Your task to perform on an android device: turn off data saver in the chrome app Image 0: 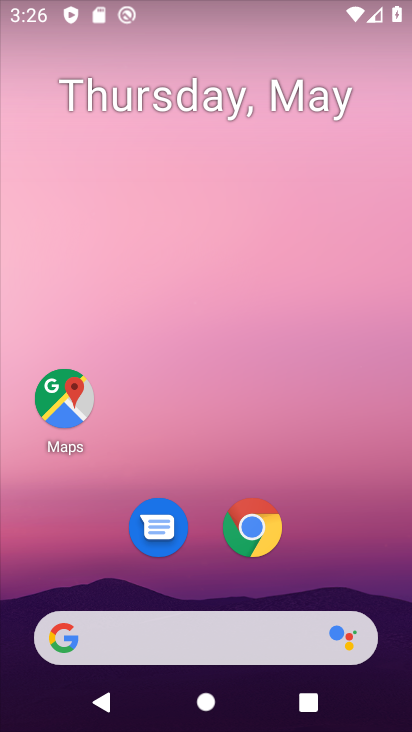
Step 0: click (253, 528)
Your task to perform on an android device: turn off data saver in the chrome app Image 1: 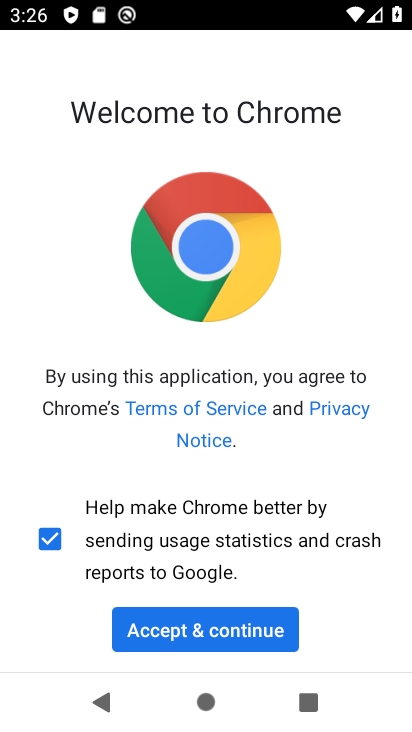
Step 1: click (196, 638)
Your task to perform on an android device: turn off data saver in the chrome app Image 2: 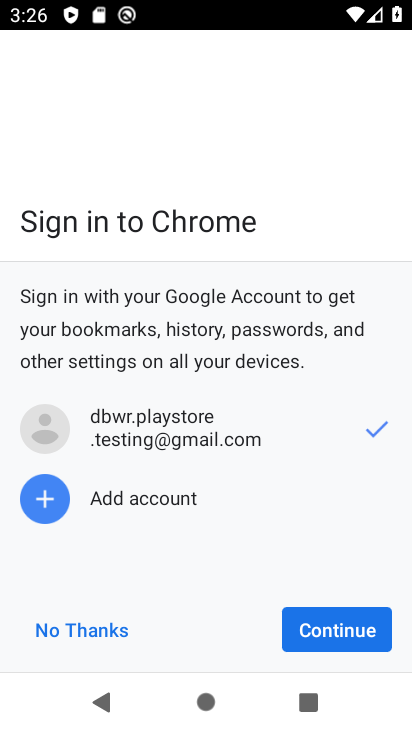
Step 2: click (327, 628)
Your task to perform on an android device: turn off data saver in the chrome app Image 3: 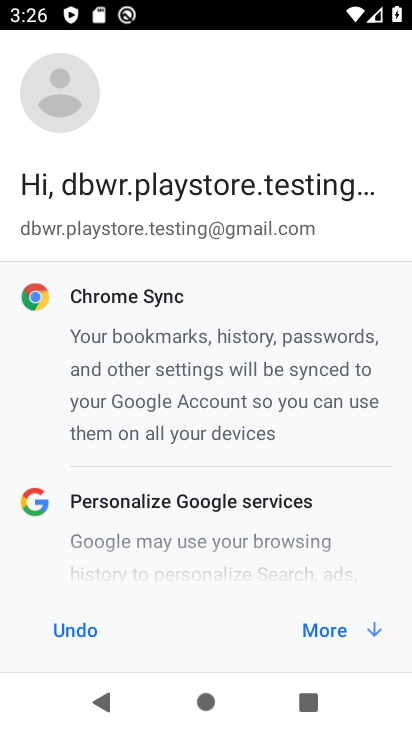
Step 3: click (327, 628)
Your task to perform on an android device: turn off data saver in the chrome app Image 4: 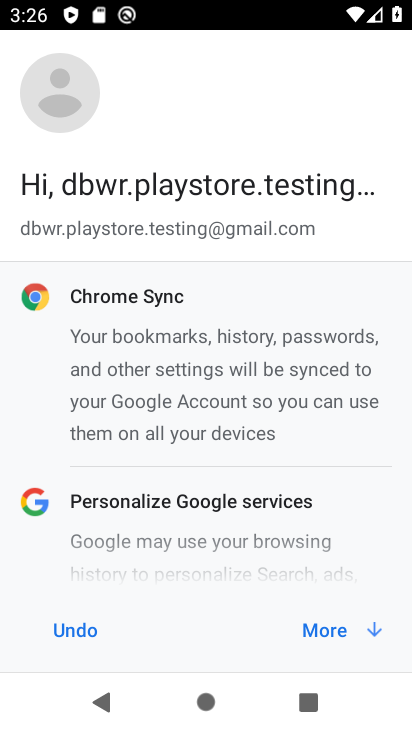
Step 4: click (327, 628)
Your task to perform on an android device: turn off data saver in the chrome app Image 5: 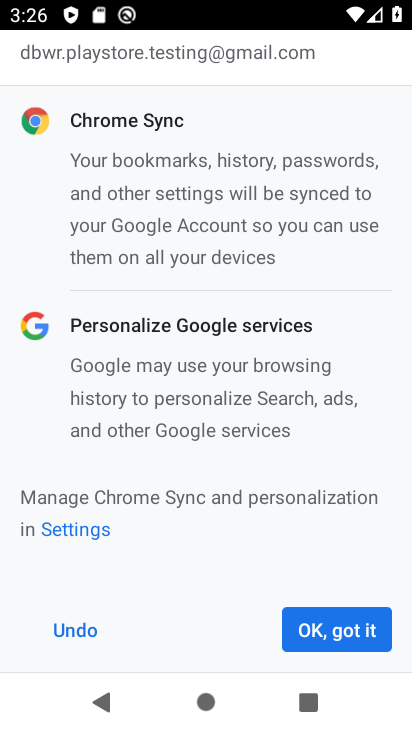
Step 5: click (327, 628)
Your task to perform on an android device: turn off data saver in the chrome app Image 6: 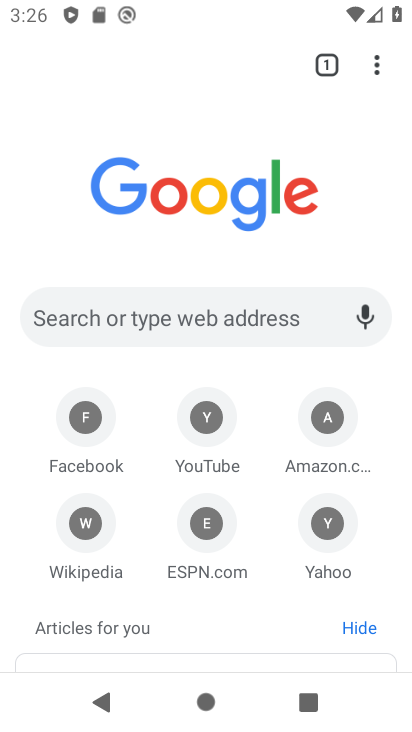
Step 6: click (158, 314)
Your task to perform on an android device: turn off data saver in the chrome app Image 7: 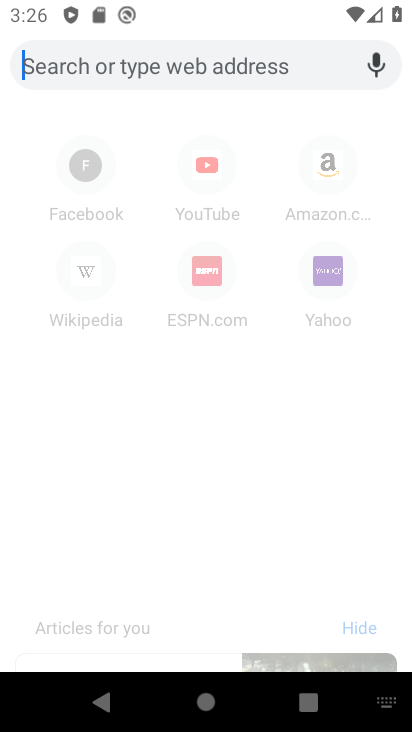
Step 7: press back button
Your task to perform on an android device: turn off data saver in the chrome app Image 8: 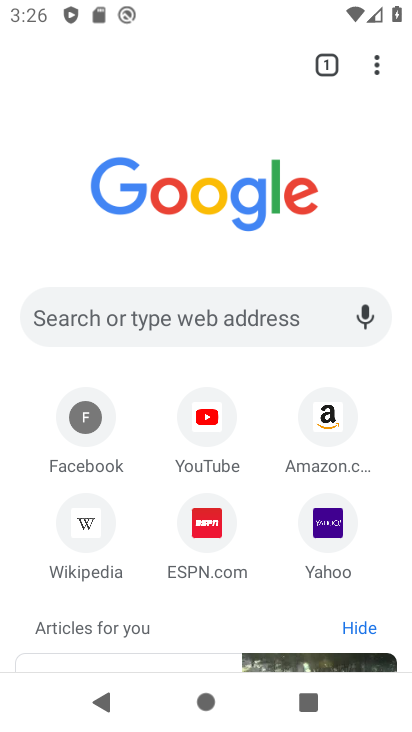
Step 8: click (377, 73)
Your task to perform on an android device: turn off data saver in the chrome app Image 9: 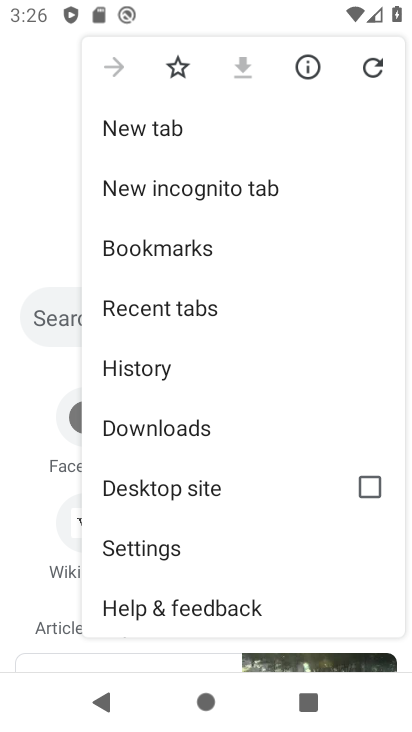
Step 9: click (149, 546)
Your task to perform on an android device: turn off data saver in the chrome app Image 10: 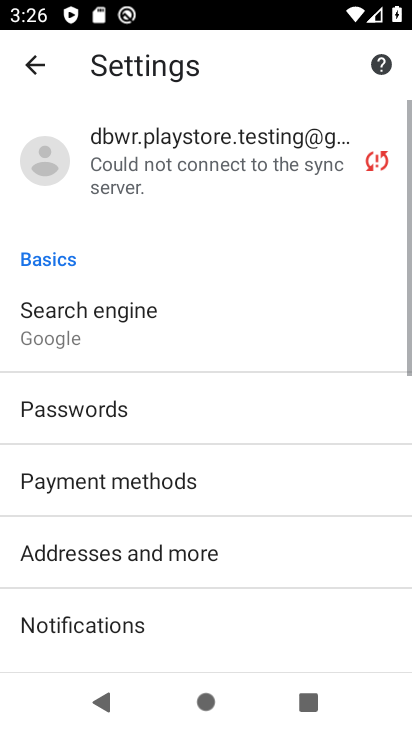
Step 10: drag from (231, 604) to (222, 110)
Your task to perform on an android device: turn off data saver in the chrome app Image 11: 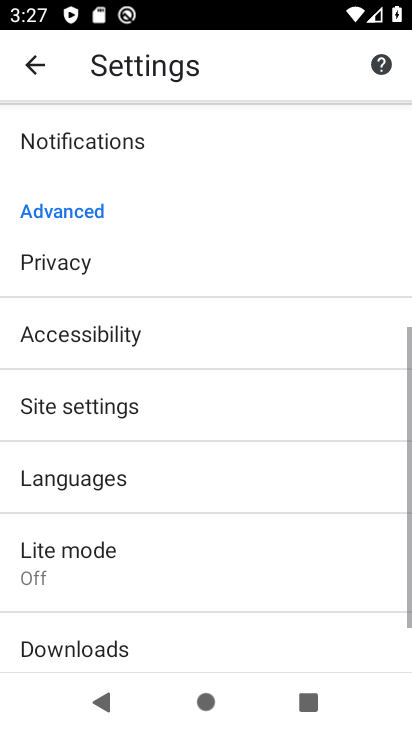
Step 11: click (83, 551)
Your task to perform on an android device: turn off data saver in the chrome app Image 12: 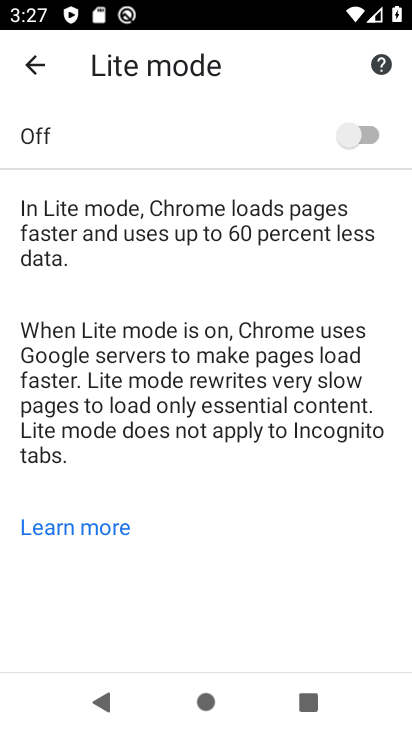
Step 12: task complete